Your task to perform on an android device: Open Wikipedia Image 0: 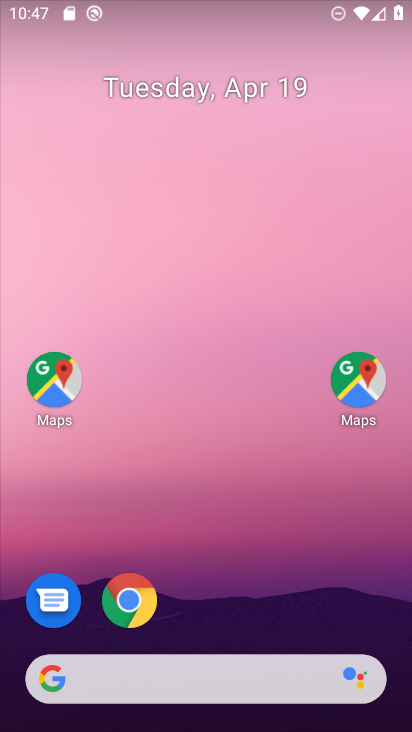
Step 0: drag from (314, 597) to (315, 14)
Your task to perform on an android device: Open Wikipedia Image 1: 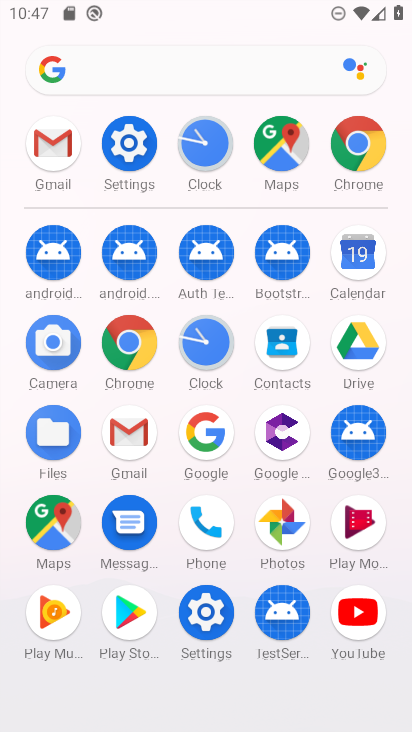
Step 1: click (140, 339)
Your task to perform on an android device: Open Wikipedia Image 2: 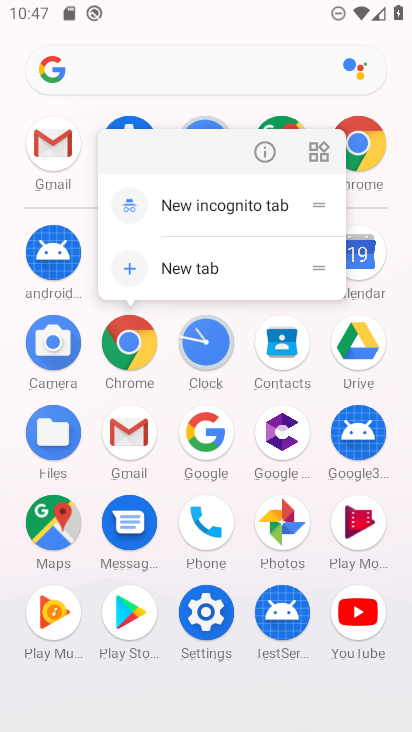
Step 2: click (146, 334)
Your task to perform on an android device: Open Wikipedia Image 3: 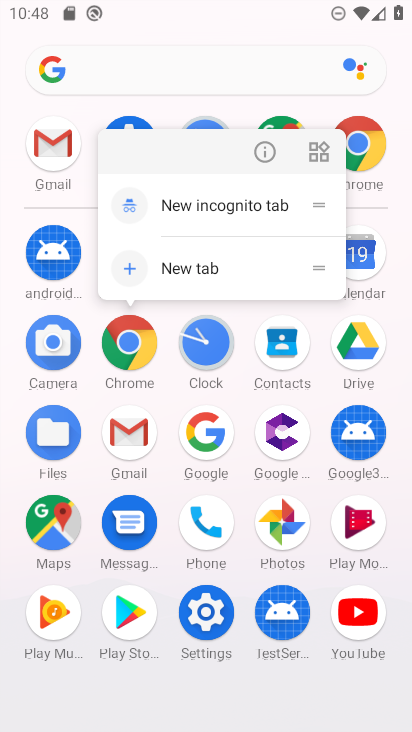
Step 3: click (136, 351)
Your task to perform on an android device: Open Wikipedia Image 4: 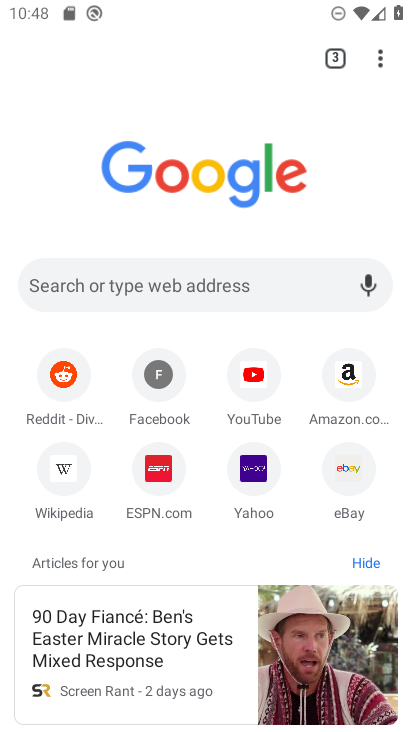
Step 4: click (243, 292)
Your task to perform on an android device: Open Wikipedia Image 5: 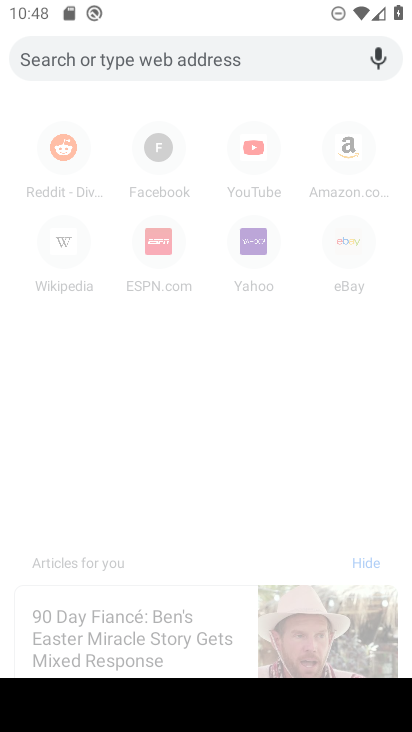
Step 5: type "wikipedia"
Your task to perform on an android device: Open Wikipedia Image 6: 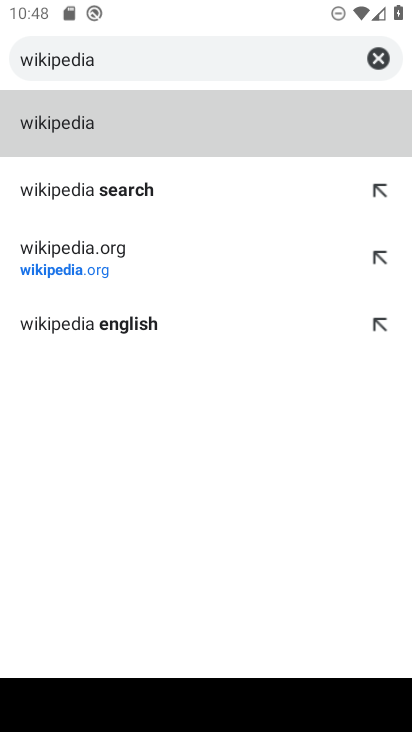
Step 6: click (157, 112)
Your task to perform on an android device: Open Wikipedia Image 7: 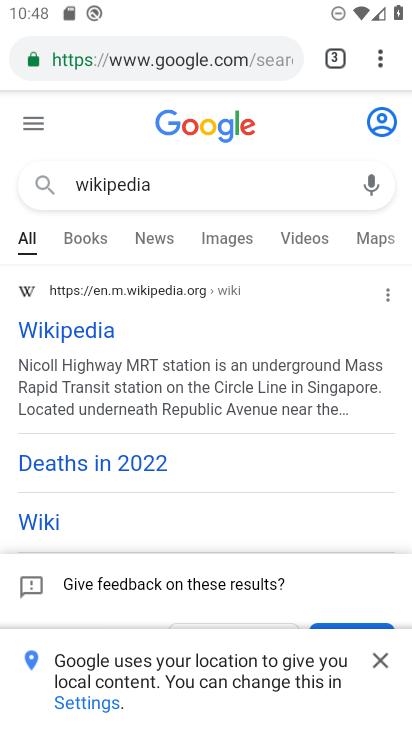
Step 7: task complete